Your task to perform on an android device: What is the news today? Image 0: 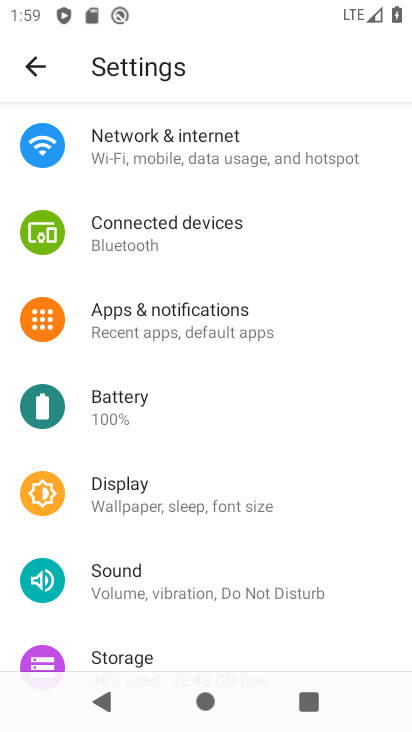
Step 0: press home button
Your task to perform on an android device: What is the news today? Image 1: 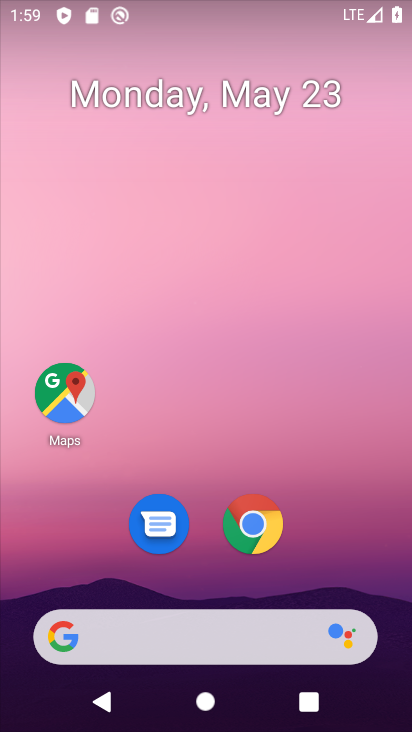
Step 1: click (182, 635)
Your task to perform on an android device: What is the news today? Image 2: 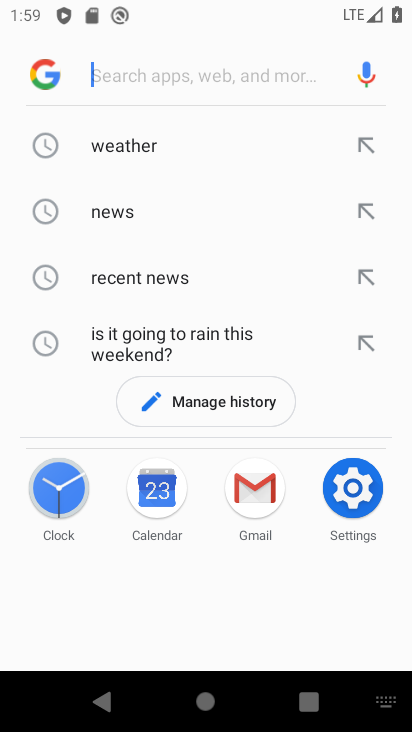
Step 2: click (73, 204)
Your task to perform on an android device: What is the news today? Image 3: 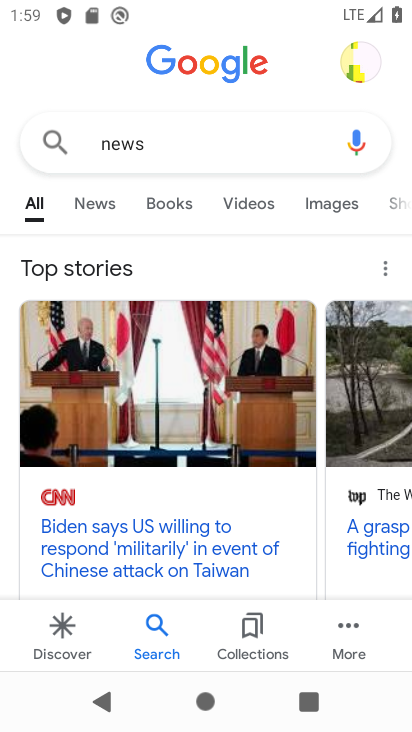
Step 3: task complete